Your task to perform on an android device: turn off improve location accuracy Image 0: 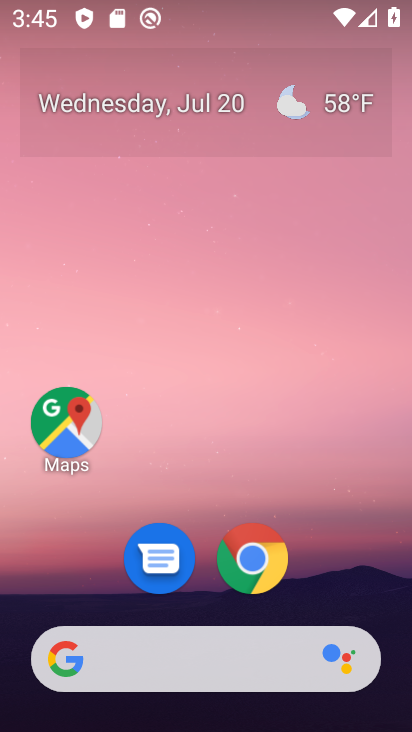
Step 0: drag from (107, 586) to (218, 176)
Your task to perform on an android device: turn off improve location accuracy Image 1: 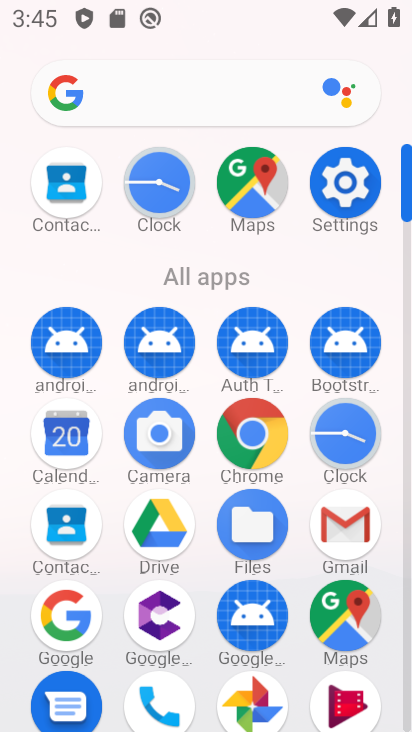
Step 1: click (362, 196)
Your task to perform on an android device: turn off improve location accuracy Image 2: 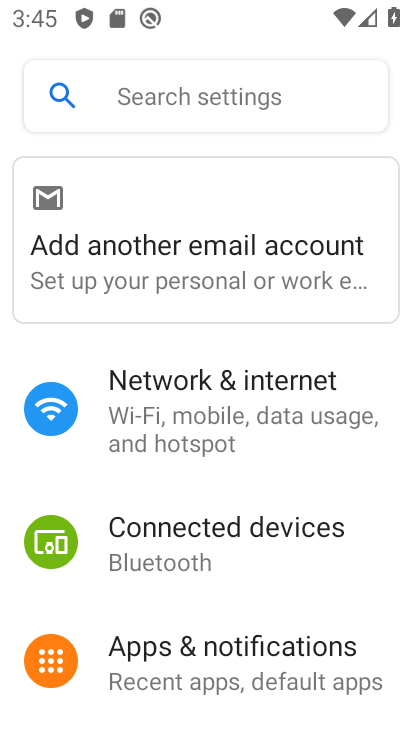
Step 2: drag from (220, 651) to (305, 34)
Your task to perform on an android device: turn off improve location accuracy Image 3: 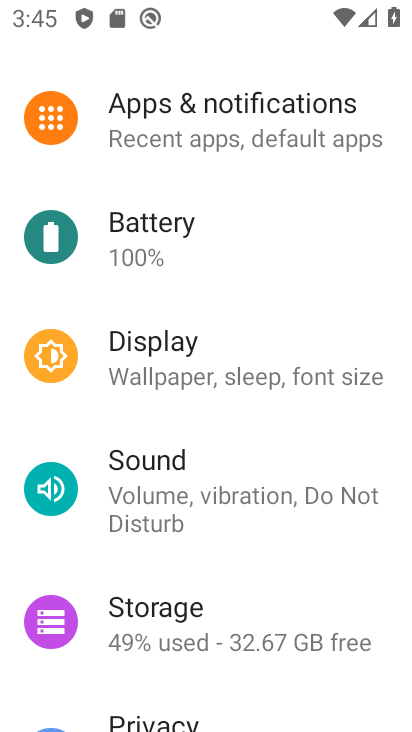
Step 3: drag from (168, 646) to (278, 83)
Your task to perform on an android device: turn off improve location accuracy Image 4: 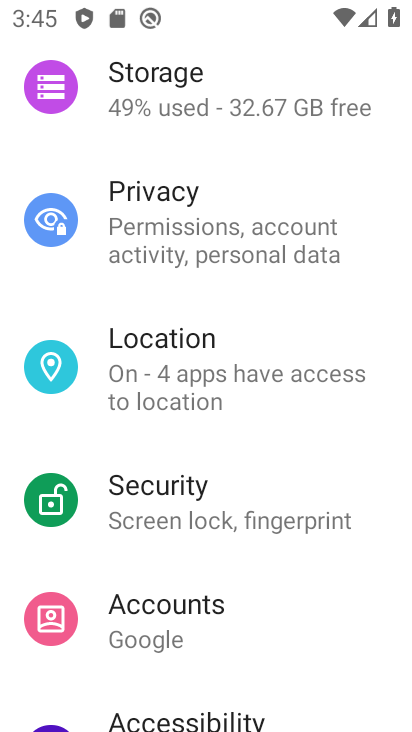
Step 4: click (168, 355)
Your task to perform on an android device: turn off improve location accuracy Image 5: 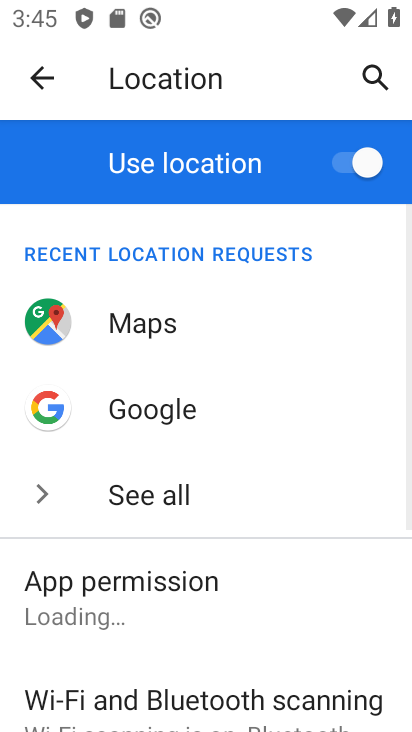
Step 5: drag from (125, 648) to (253, 93)
Your task to perform on an android device: turn off improve location accuracy Image 6: 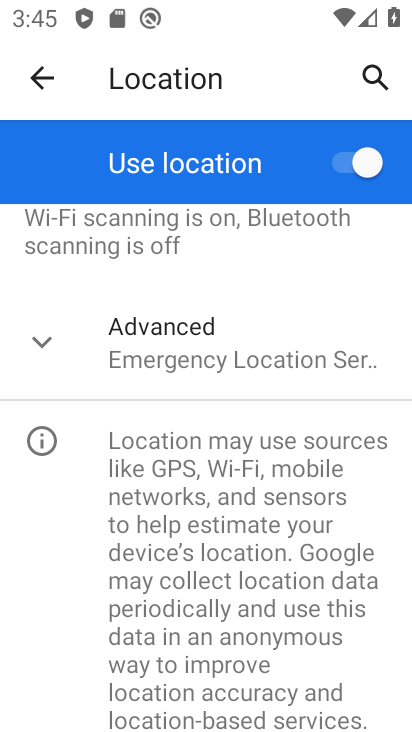
Step 6: click (154, 351)
Your task to perform on an android device: turn off improve location accuracy Image 7: 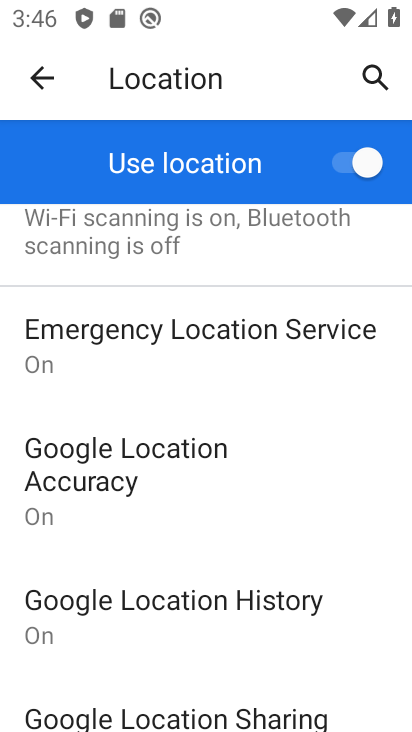
Step 7: click (97, 466)
Your task to perform on an android device: turn off improve location accuracy Image 8: 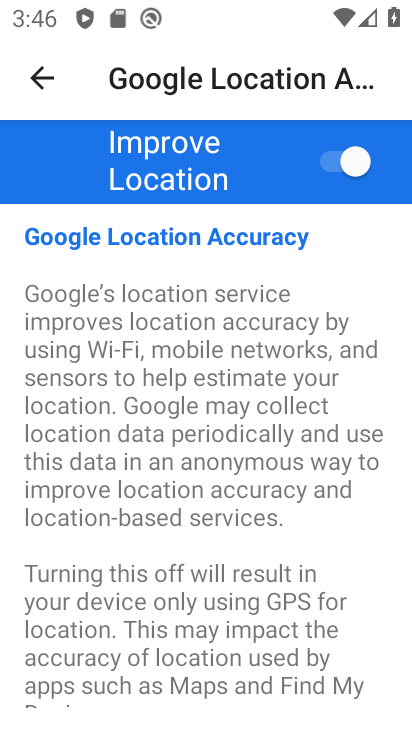
Step 8: click (339, 152)
Your task to perform on an android device: turn off improve location accuracy Image 9: 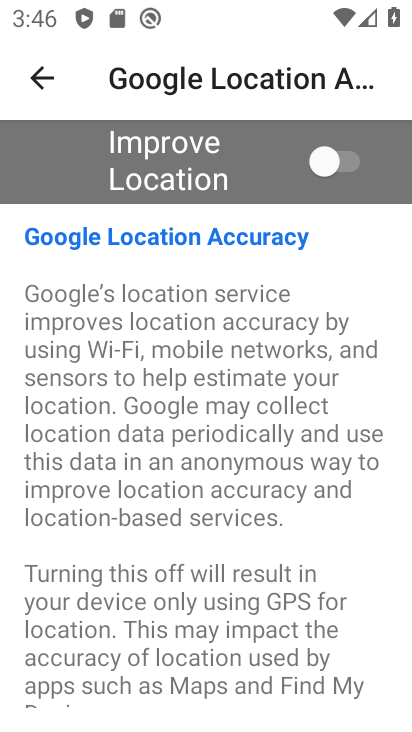
Step 9: task complete